Your task to perform on an android device: Open calendar and show me the first week of next month Image 0: 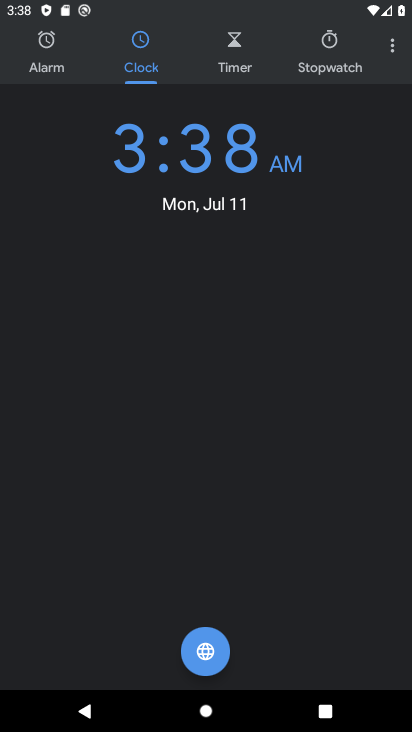
Step 0: press home button
Your task to perform on an android device: Open calendar and show me the first week of next month Image 1: 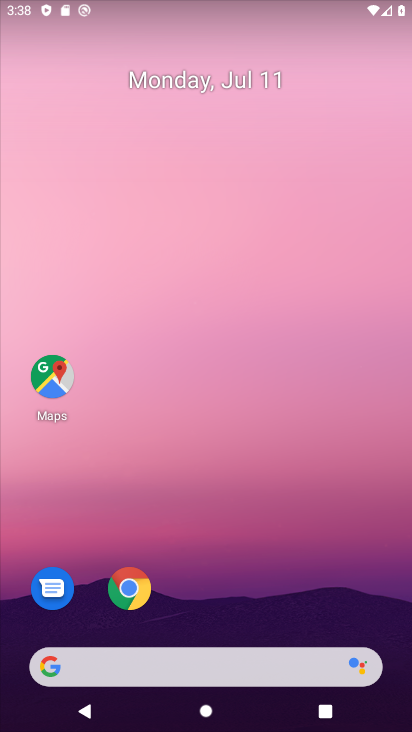
Step 1: drag from (237, 618) to (245, 124)
Your task to perform on an android device: Open calendar and show me the first week of next month Image 2: 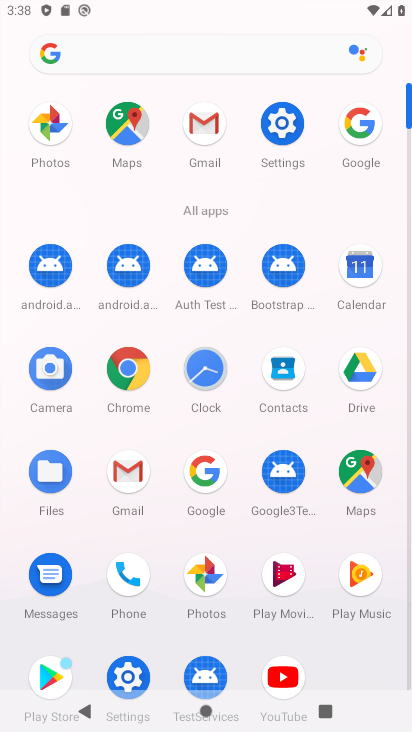
Step 2: click (360, 268)
Your task to perform on an android device: Open calendar and show me the first week of next month Image 3: 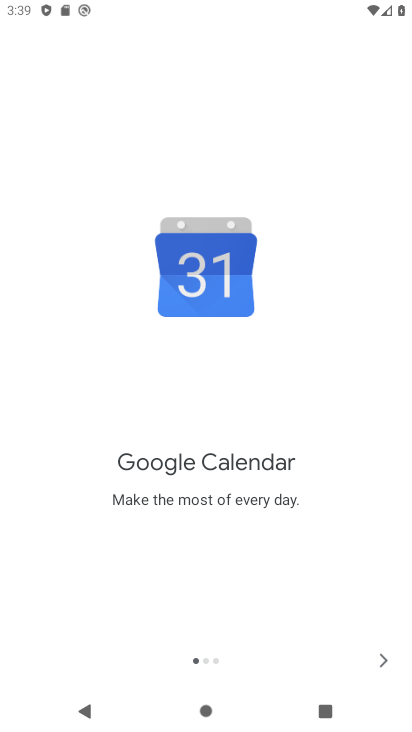
Step 3: click (382, 653)
Your task to perform on an android device: Open calendar and show me the first week of next month Image 4: 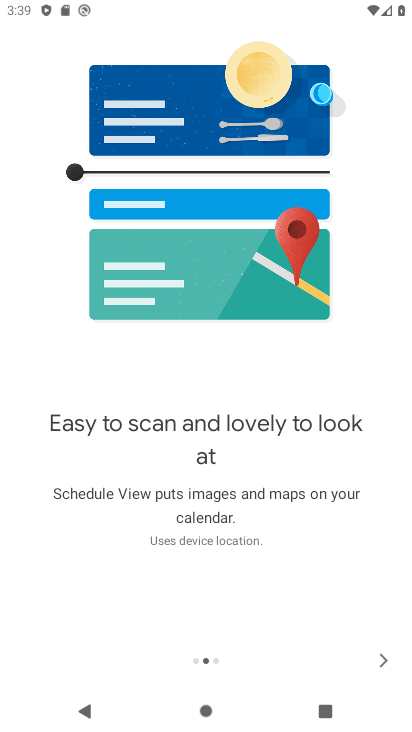
Step 4: click (382, 653)
Your task to perform on an android device: Open calendar and show me the first week of next month Image 5: 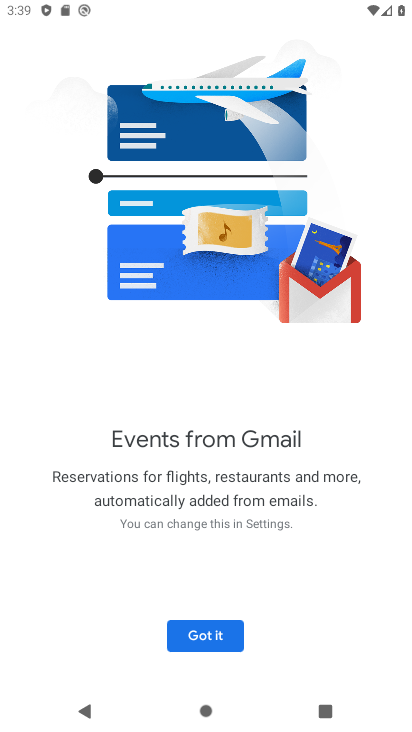
Step 5: click (224, 634)
Your task to perform on an android device: Open calendar and show me the first week of next month Image 6: 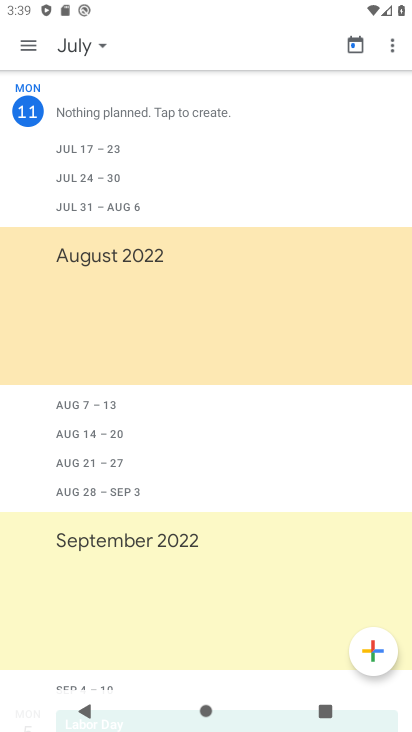
Step 6: click (392, 46)
Your task to perform on an android device: Open calendar and show me the first week of next month Image 7: 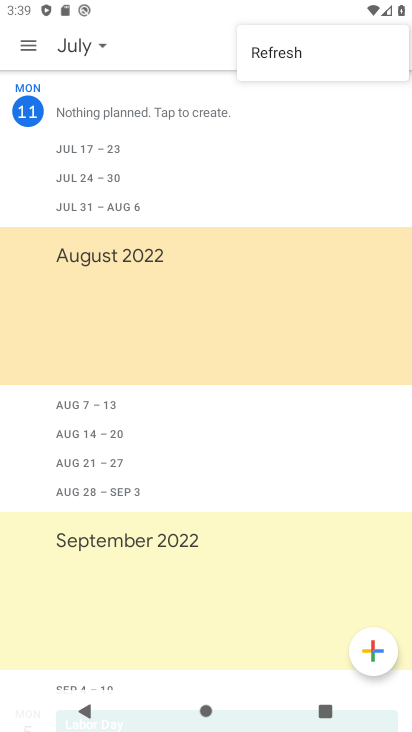
Step 7: click (82, 47)
Your task to perform on an android device: Open calendar and show me the first week of next month Image 8: 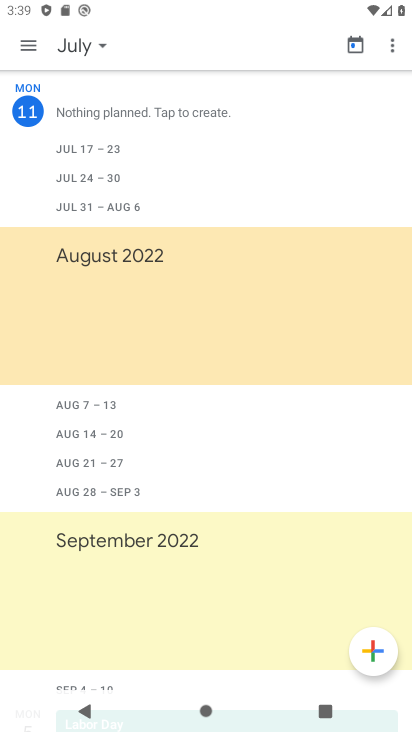
Step 8: click (93, 47)
Your task to perform on an android device: Open calendar and show me the first week of next month Image 9: 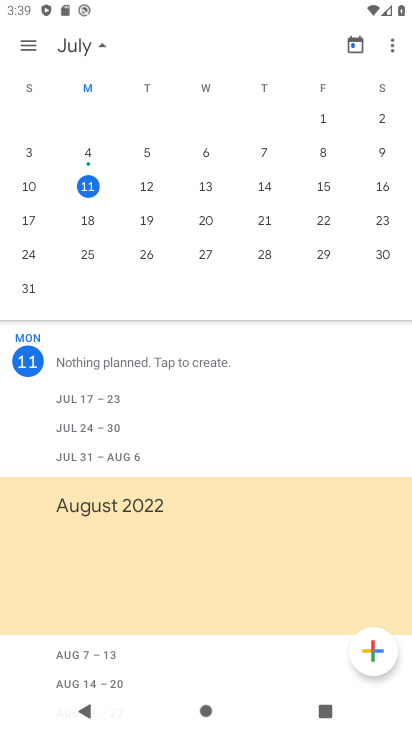
Step 9: drag from (354, 193) to (7, 206)
Your task to perform on an android device: Open calendar and show me the first week of next month Image 10: 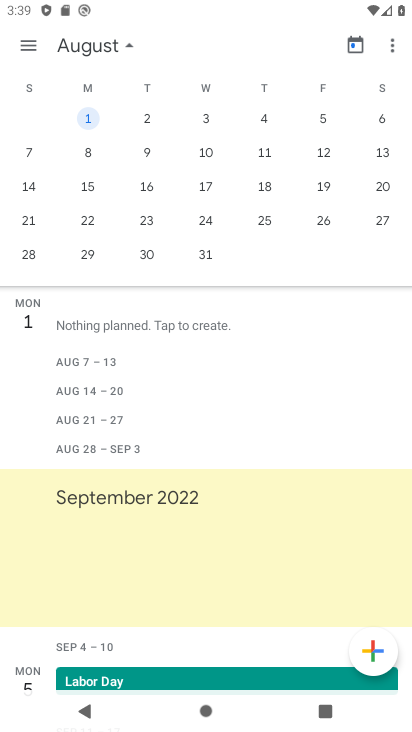
Step 10: click (32, 44)
Your task to perform on an android device: Open calendar and show me the first week of next month Image 11: 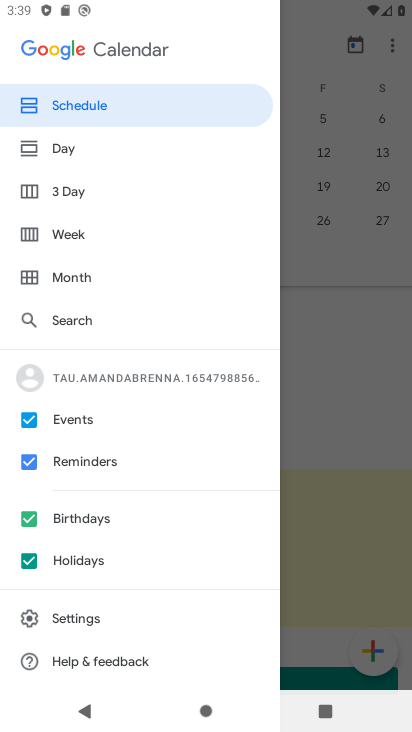
Step 11: click (78, 228)
Your task to perform on an android device: Open calendar and show me the first week of next month Image 12: 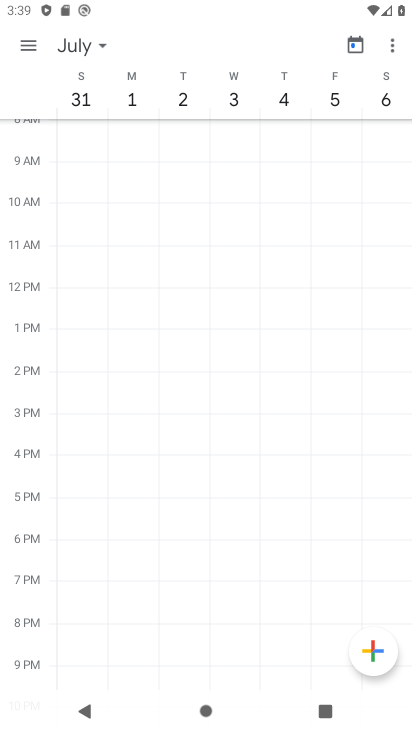
Step 12: task complete